Your task to perform on an android device: turn on showing notifications on the lock screen Image 0: 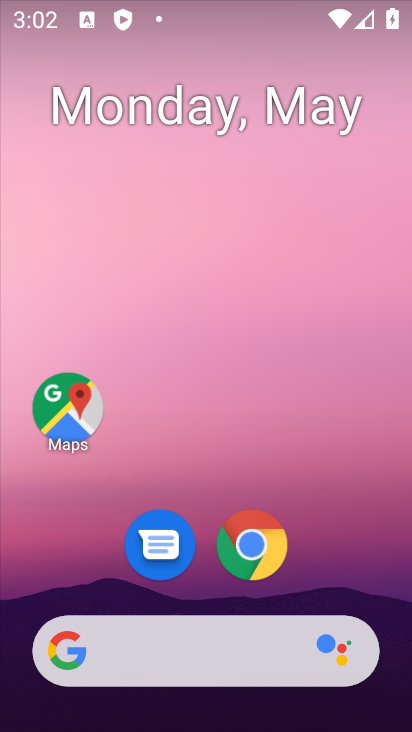
Step 0: drag from (211, 584) to (228, 260)
Your task to perform on an android device: turn on showing notifications on the lock screen Image 1: 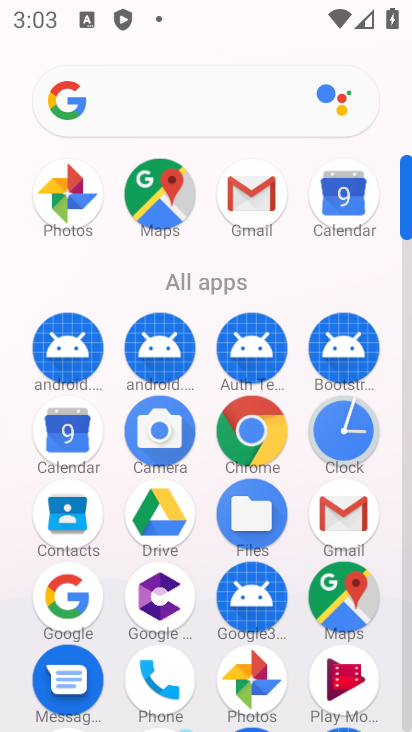
Step 1: drag from (191, 568) to (260, 206)
Your task to perform on an android device: turn on showing notifications on the lock screen Image 2: 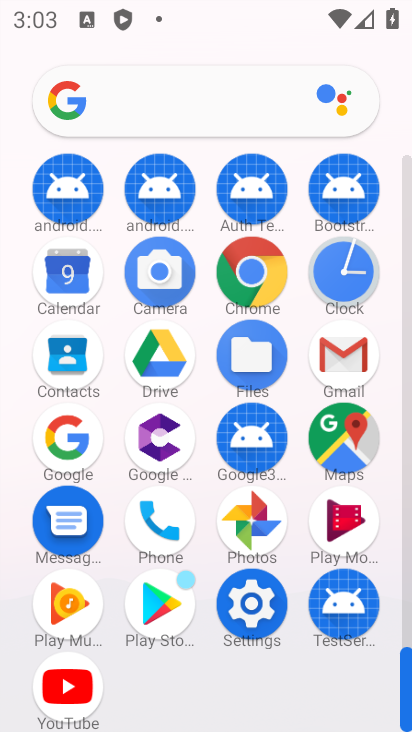
Step 2: click (255, 620)
Your task to perform on an android device: turn on showing notifications on the lock screen Image 3: 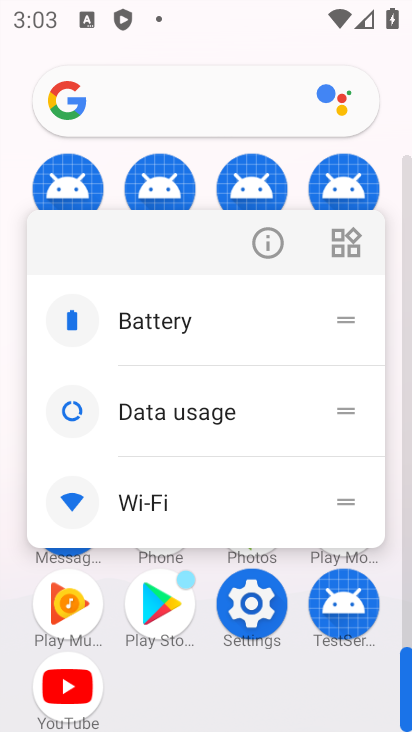
Step 3: click (261, 616)
Your task to perform on an android device: turn on showing notifications on the lock screen Image 4: 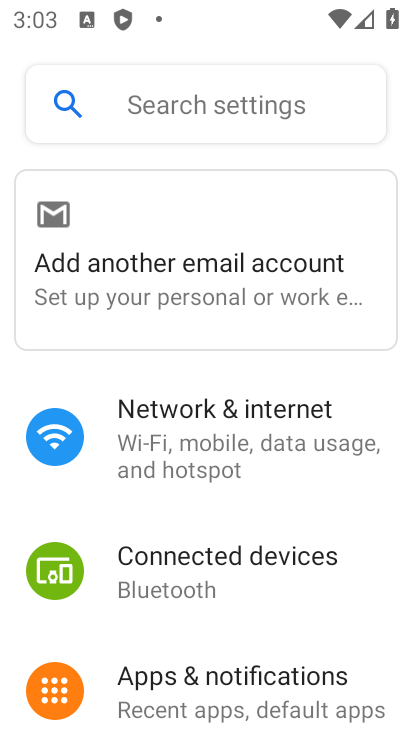
Step 4: drag from (272, 665) to (338, 390)
Your task to perform on an android device: turn on showing notifications on the lock screen Image 5: 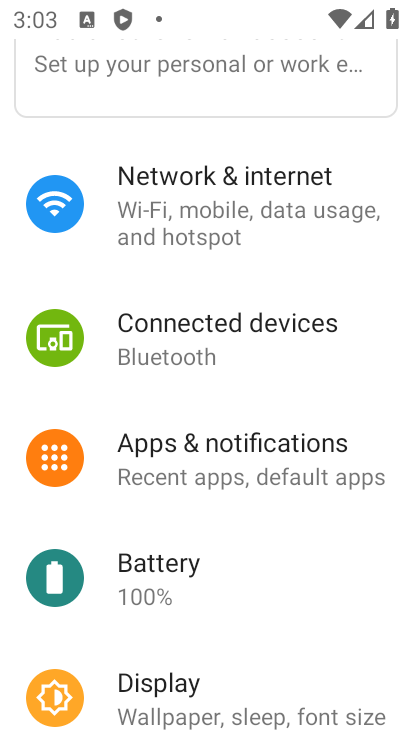
Step 5: click (225, 467)
Your task to perform on an android device: turn on showing notifications on the lock screen Image 6: 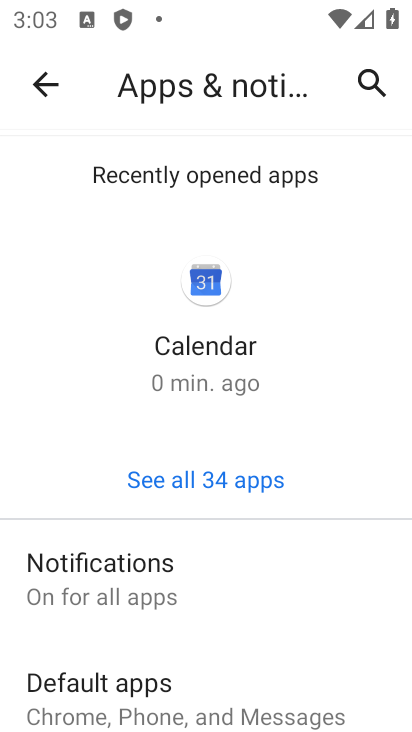
Step 6: click (156, 578)
Your task to perform on an android device: turn on showing notifications on the lock screen Image 7: 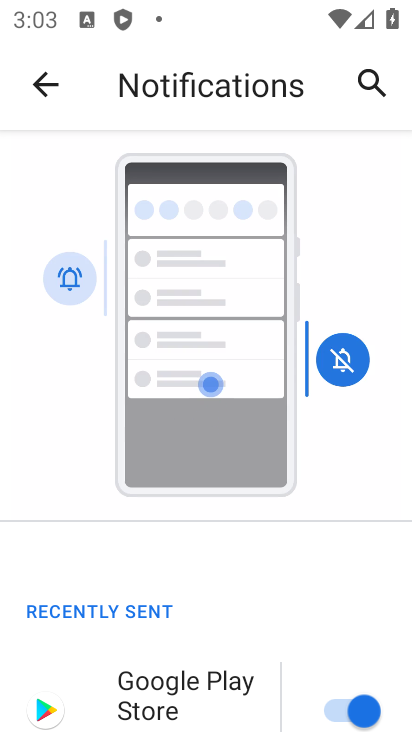
Step 7: drag from (244, 695) to (244, 338)
Your task to perform on an android device: turn on showing notifications on the lock screen Image 8: 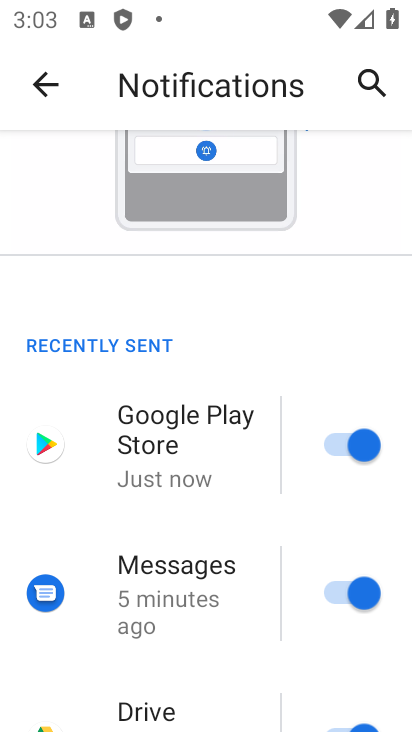
Step 8: drag from (234, 526) to (275, 204)
Your task to perform on an android device: turn on showing notifications on the lock screen Image 9: 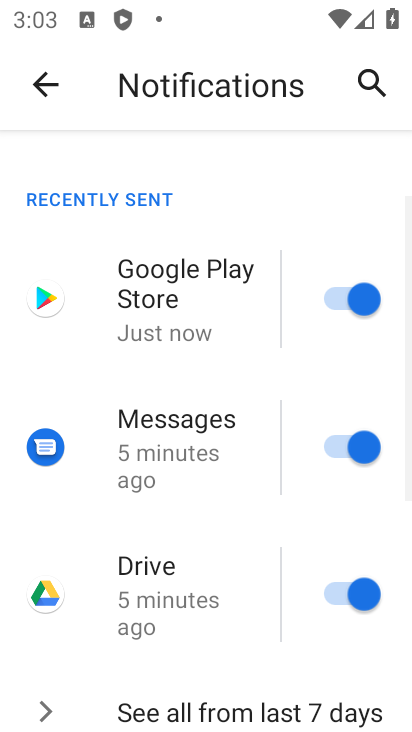
Step 9: drag from (276, 613) to (272, 228)
Your task to perform on an android device: turn on showing notifications on the lock screen Image 10: 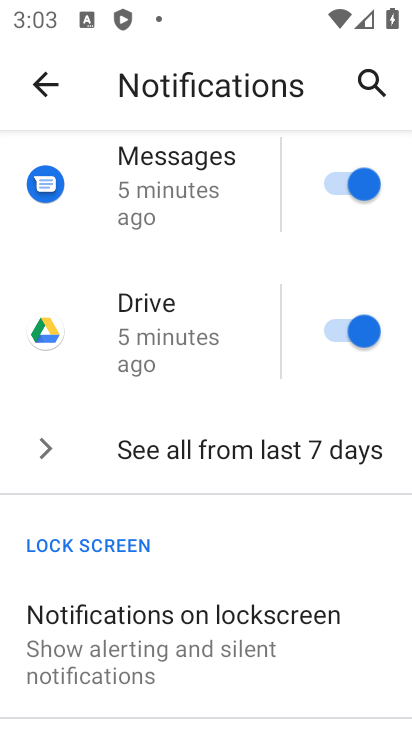
Step 10: drag from (255, 554) to (280, 284)
Your task to perform on an android device: turn on showing notifications on the lock screen Image 11: 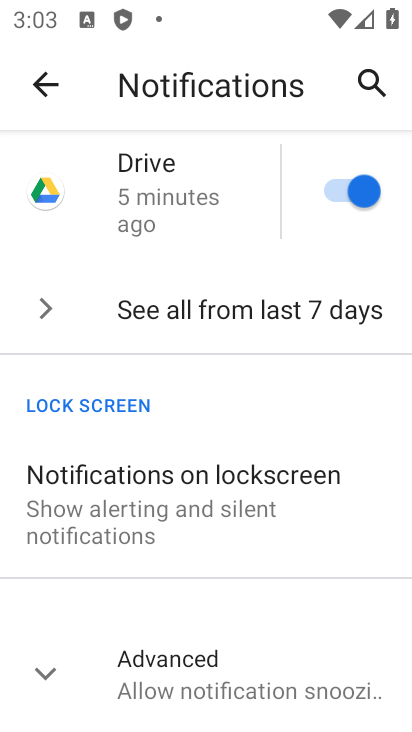
Step 11: click (211, 531)
Your task to perform on an android device: turn on showing notifications on the lock screen Image 12: 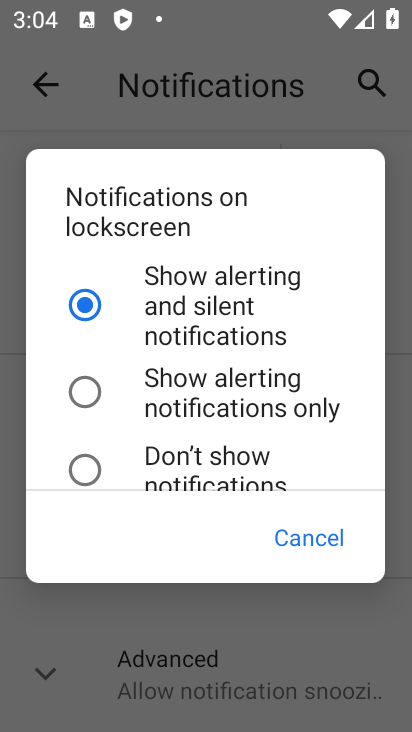
Step 12: task complete